Your task to perform on an android device: install app "Adobe Acrobat Reader" Image 0: 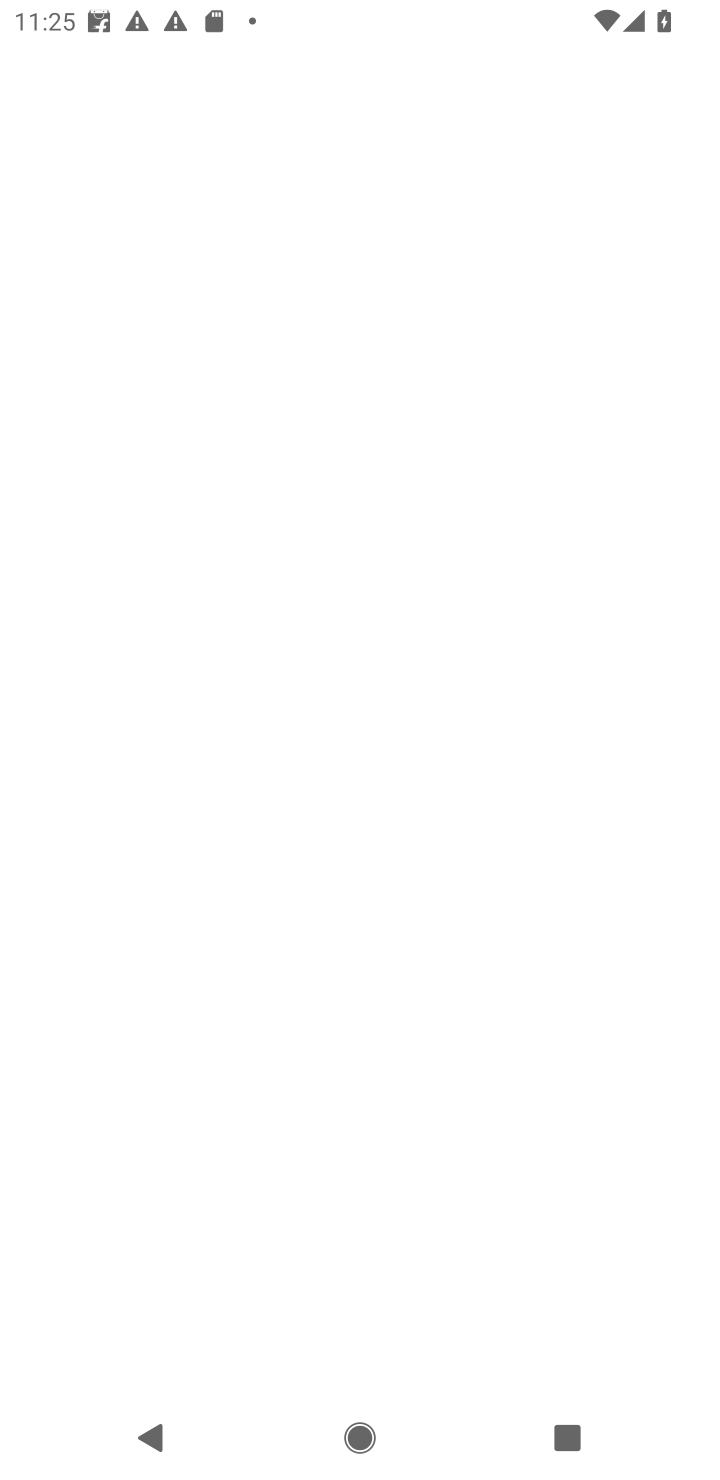
Step 0: press home button
Your task to perform on an android device: install app "Adobe Acrobat Reader" Image 1: 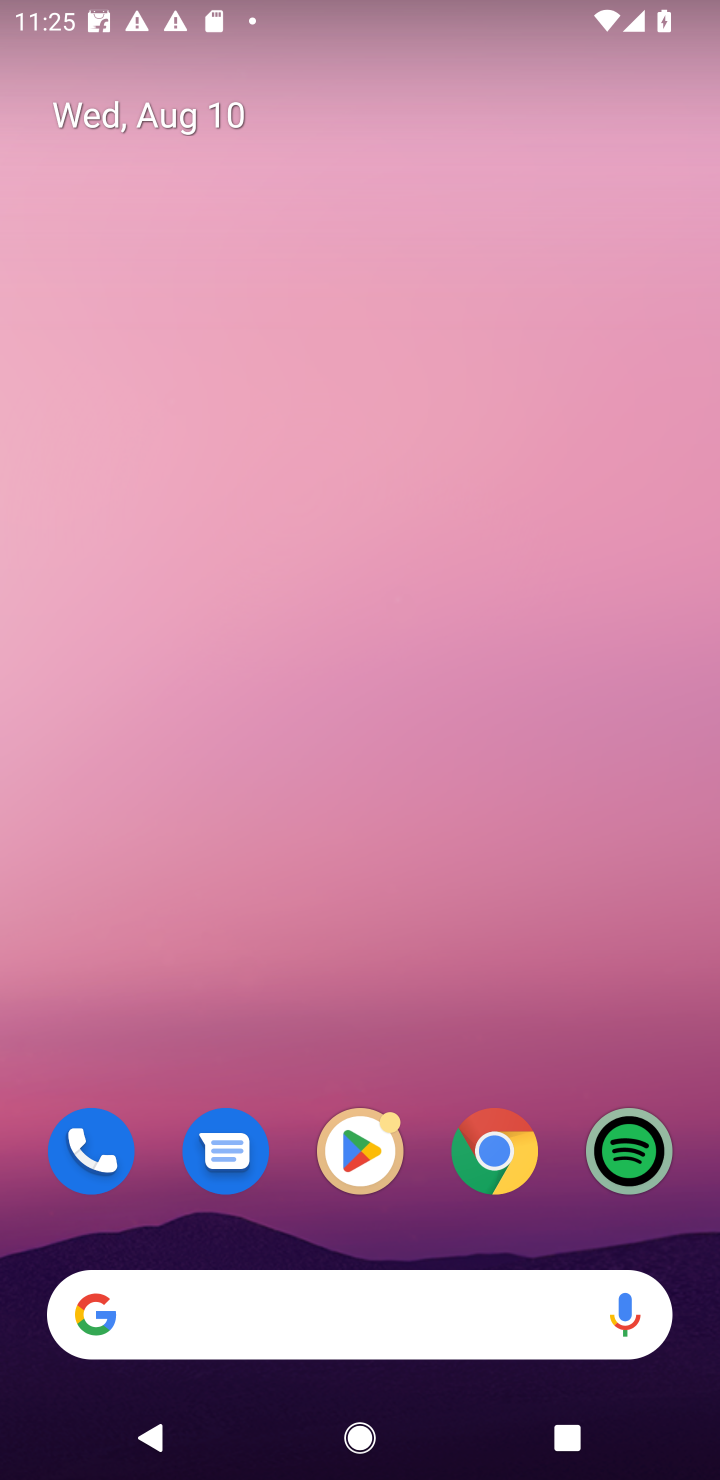
Step 1: drag from (407, 1068) to (407, 99)
Your task to perform on an android device: install app "Adobe Acrobat Reader" Image 2: 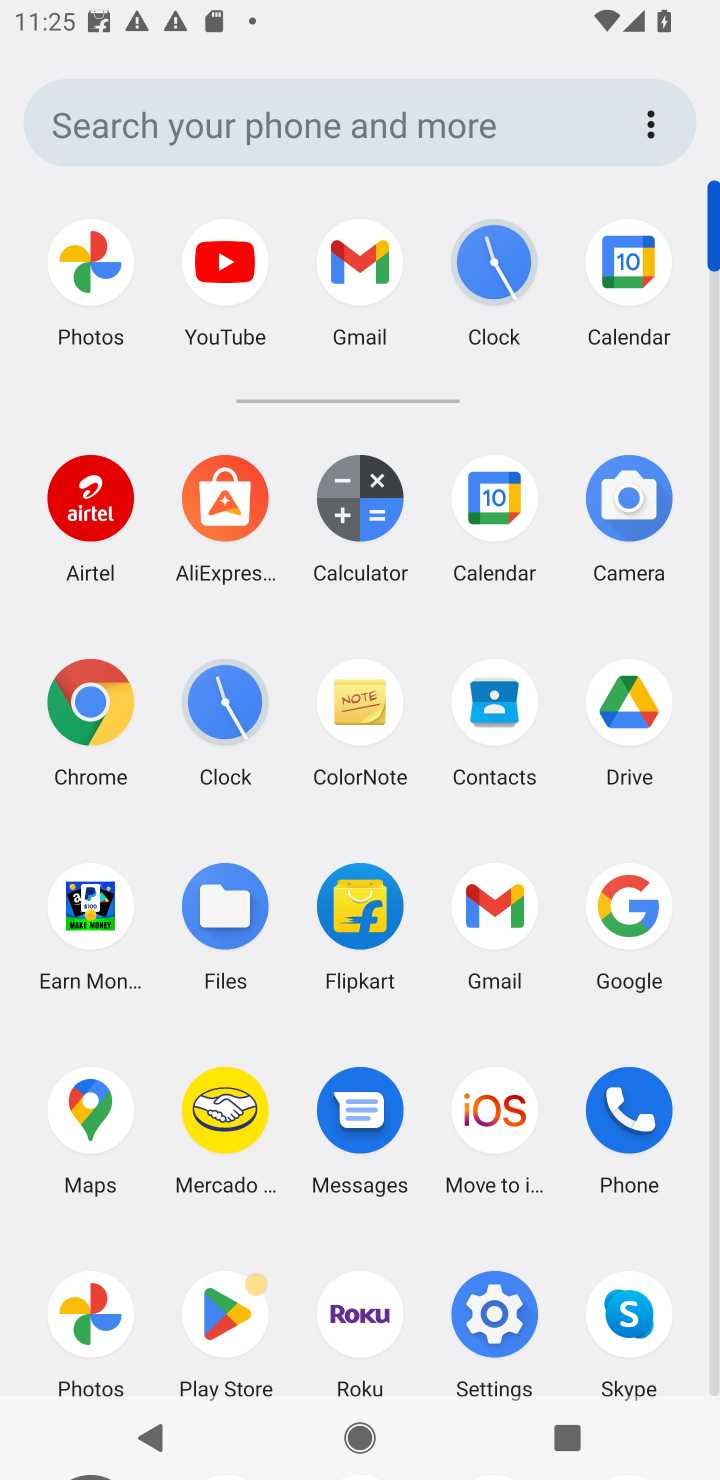
Step 2: click (218, 1302)
Your task to perform on an android device: install app "Adobe Acrobat Reader" Image 3: 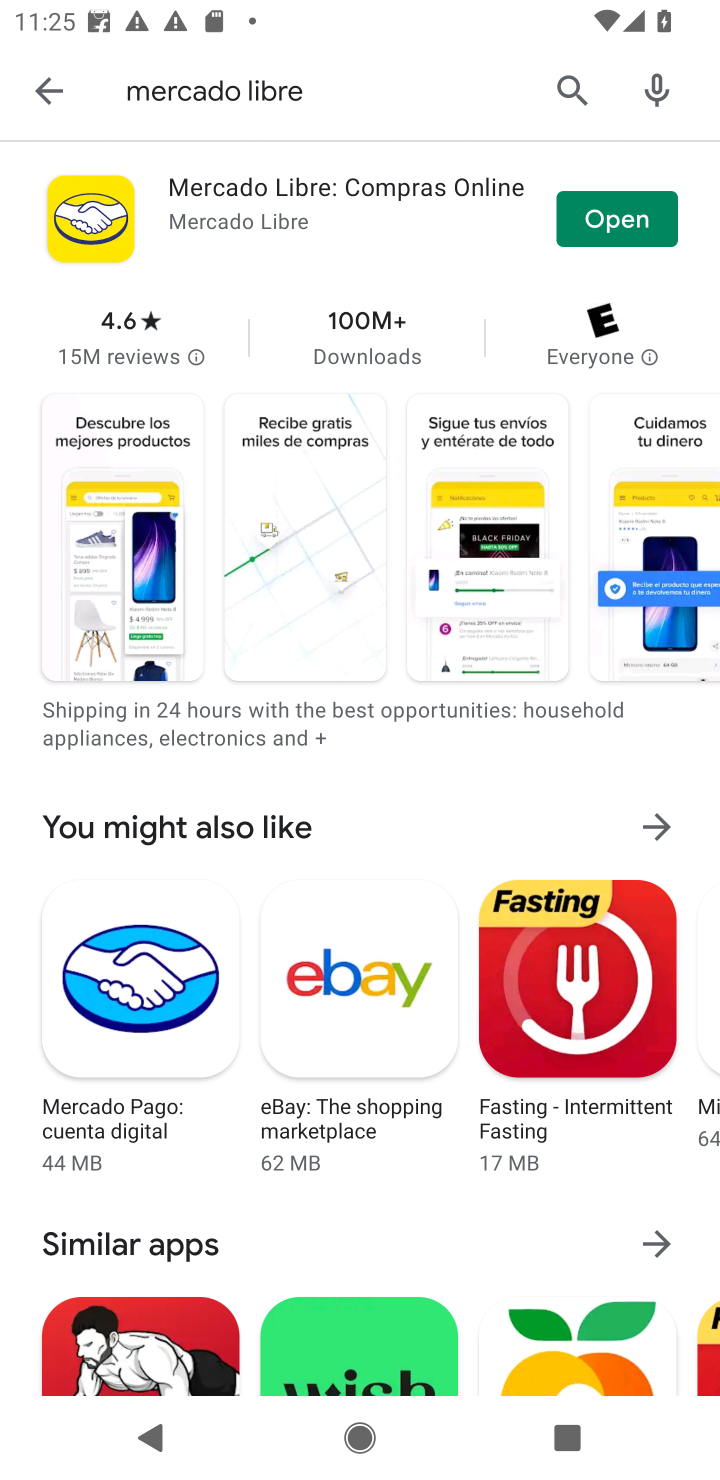
Step 3: click (552, 95)
Your task to perform on an android device: install app "Adobe Acrobat Reader" Image 4: 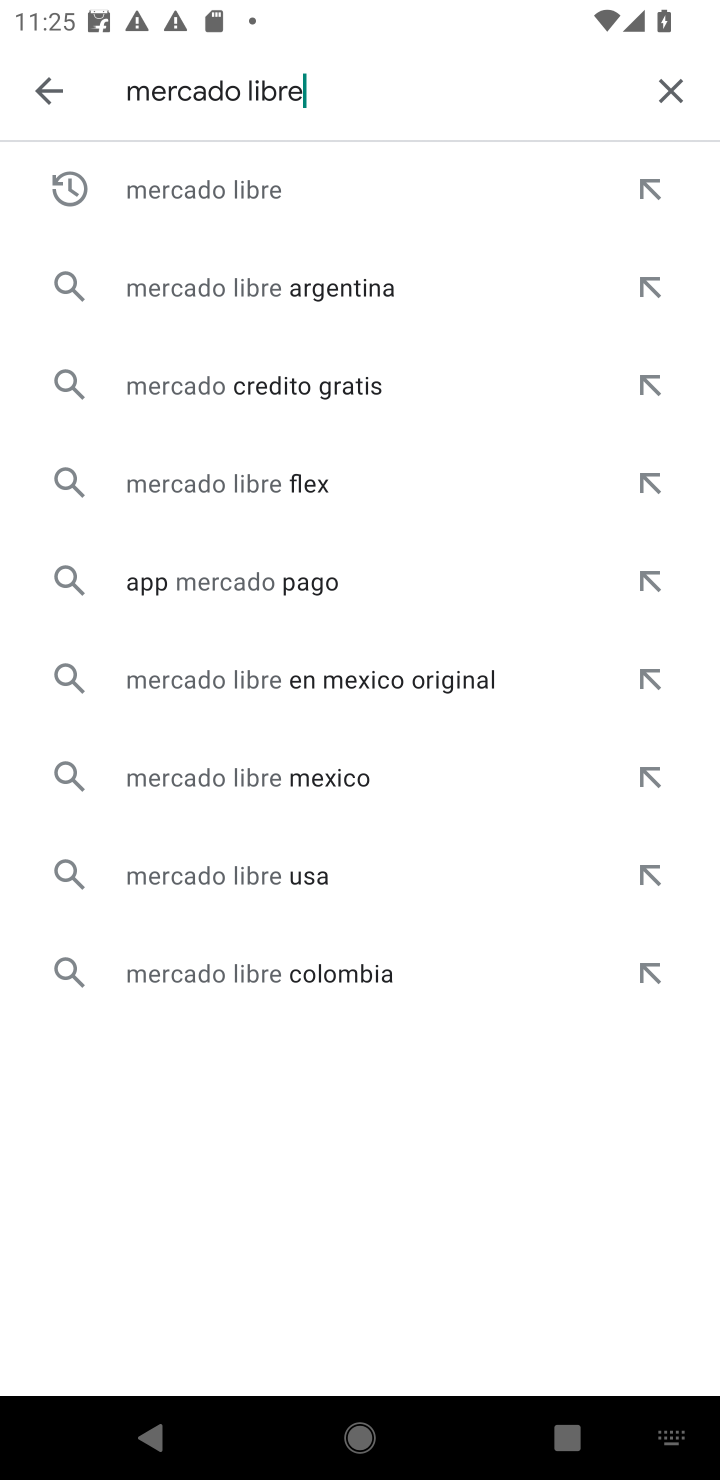
Step 4: click (676, 86)
Your task to perform on an android device: install app "Adobe Acrobat Reader" Image 5: 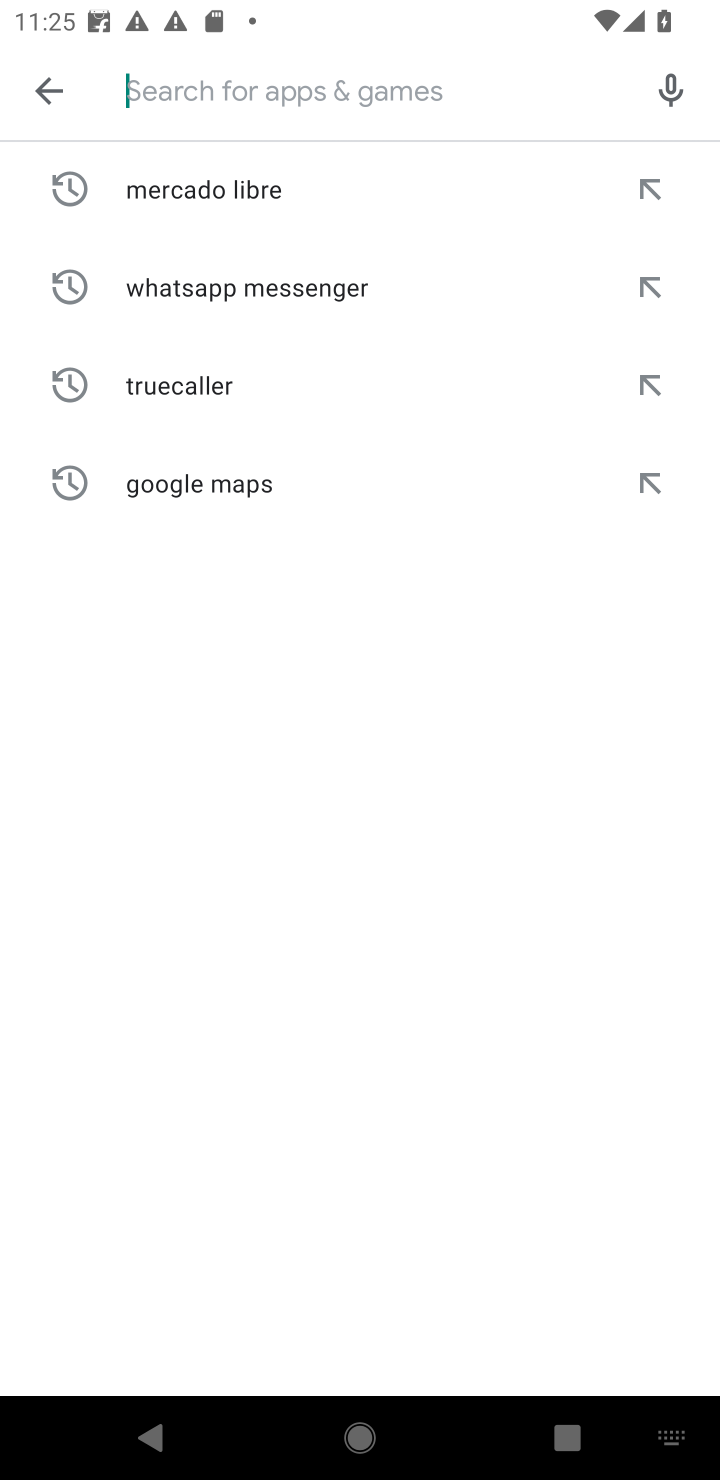
Step 5: type "Adobe Acrobat Reader"
Your task to perform on an android device: install app "Adobe Acrobat Reader" Image 6: 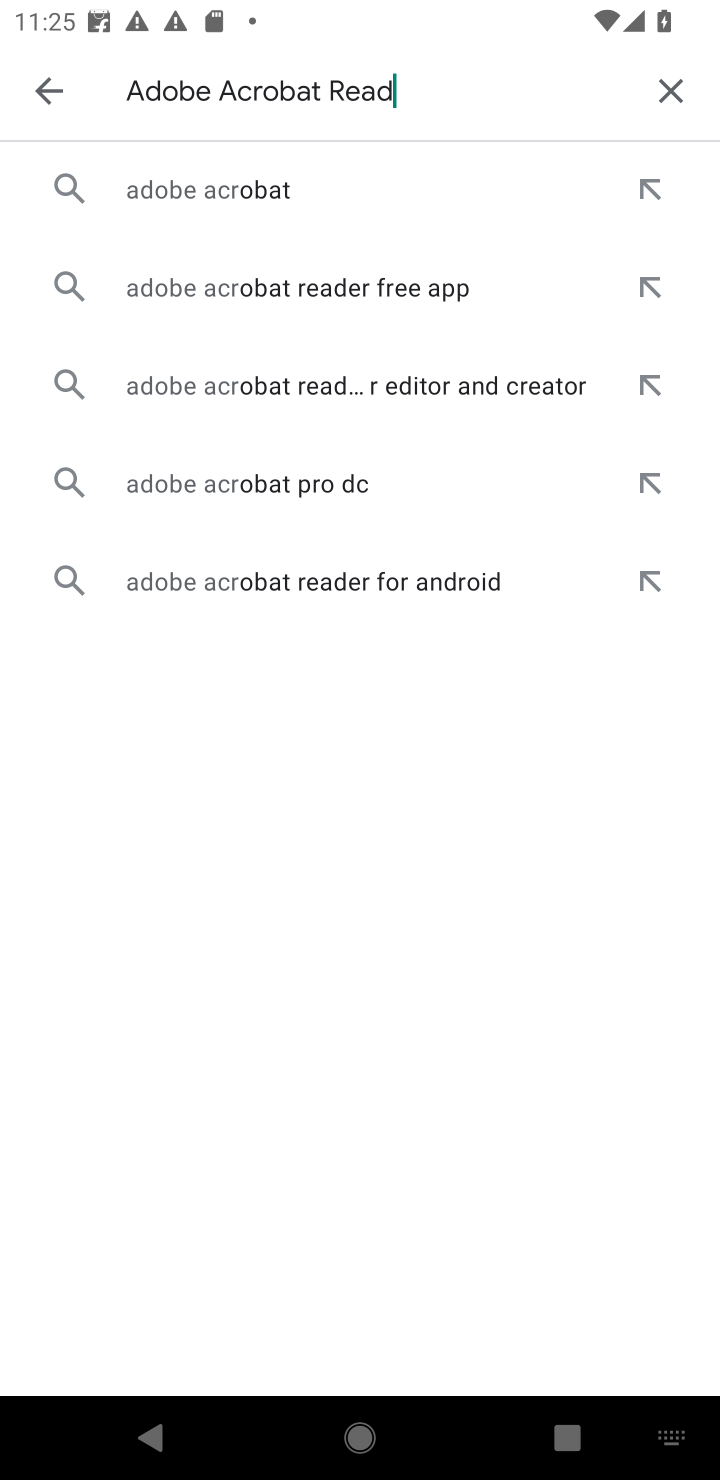
Step 6: type ""
Your task to perform on an android device: install app "Adobe Acrobat Reader" Image 7: 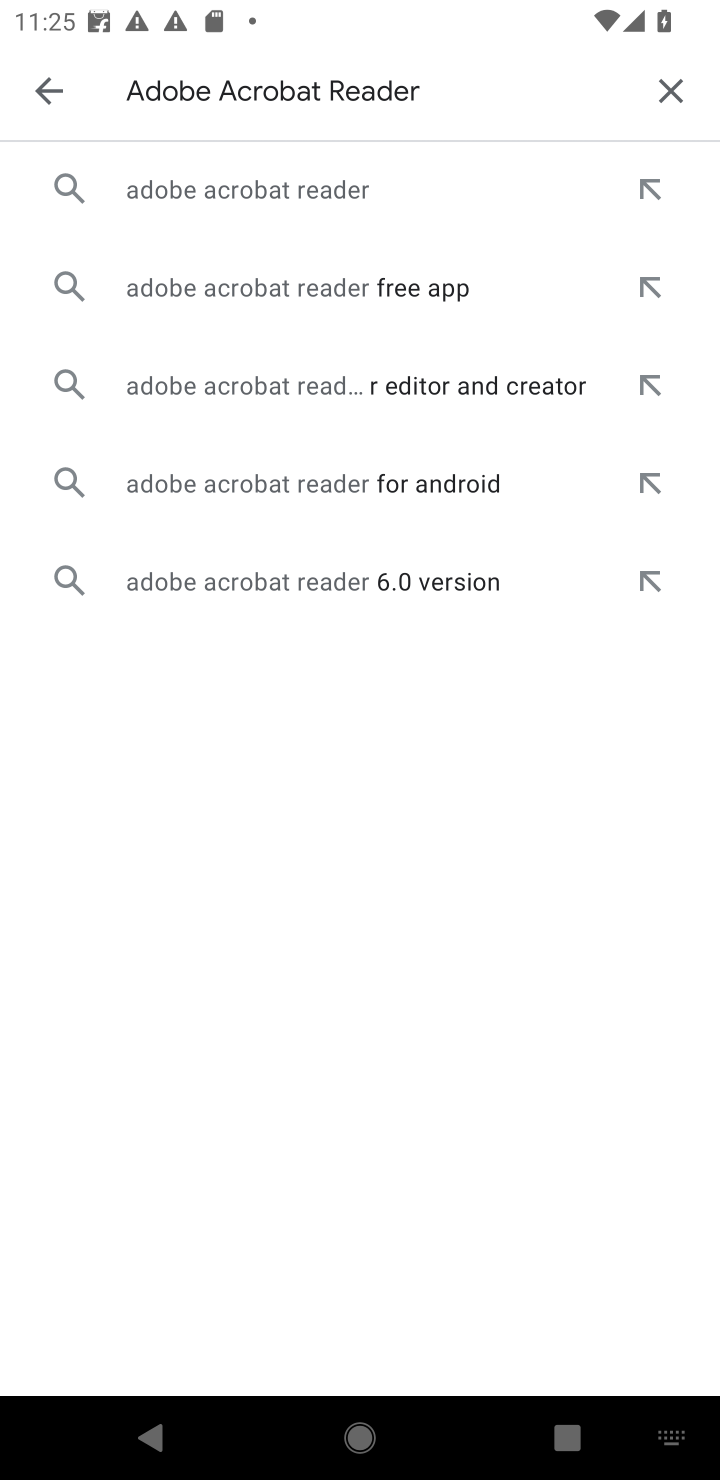
Step 7: click (349, 203)
Your task to perform on an android device: install app "Adobe Acrobat Reader" Image 8: 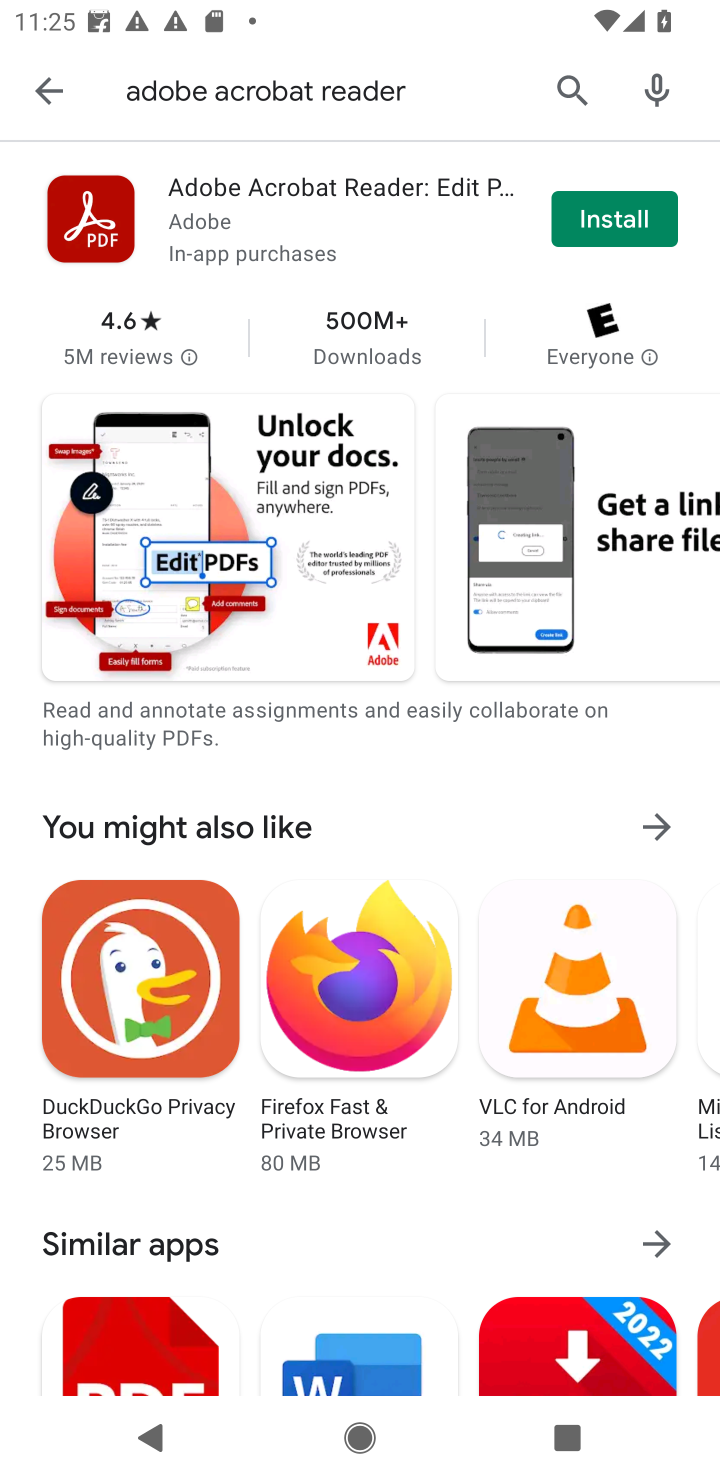
Step 8: click (598, 217)
Your task to perform on an android device: install app "Adobe Acrobat Reader" Image 9: 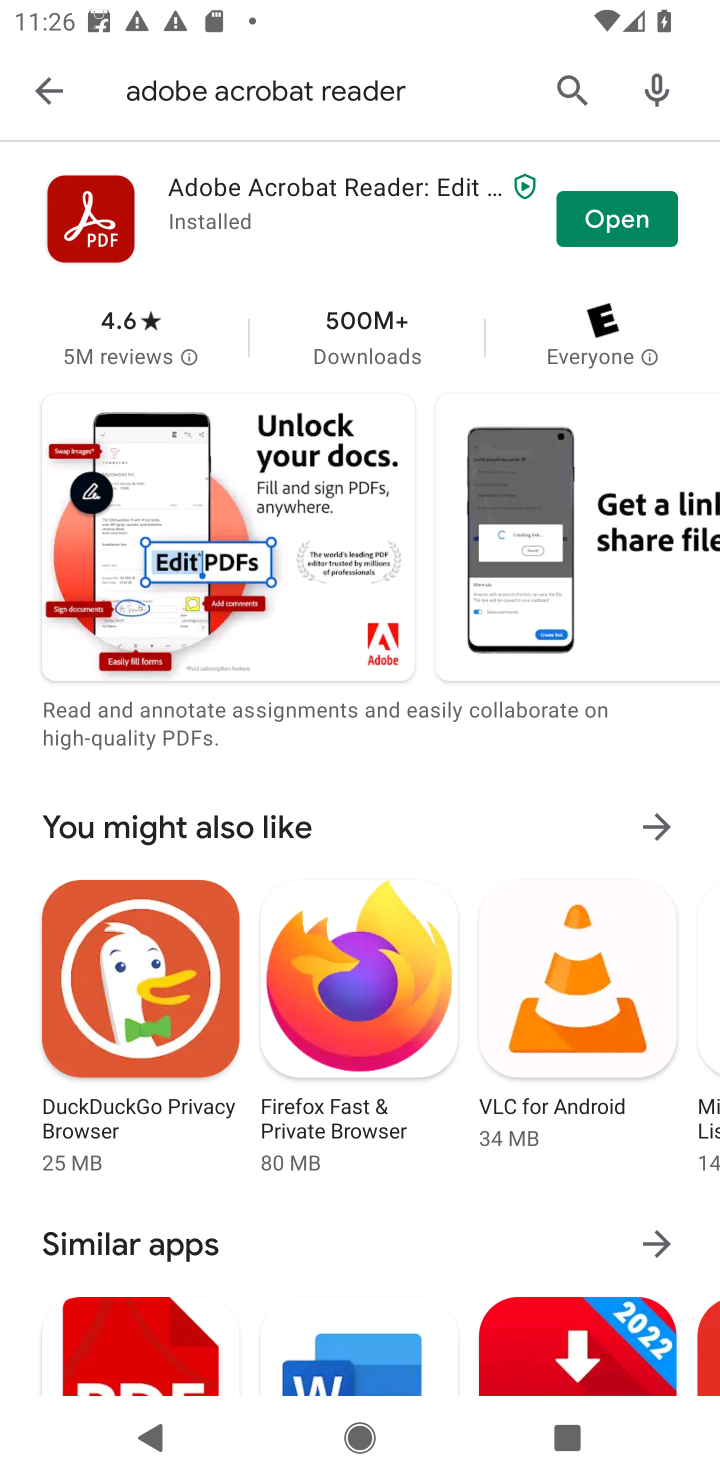
Step 9: click (592, 203)
Your task to perform on an android device: install app "Adobe Acrobat Reader" Image 10: 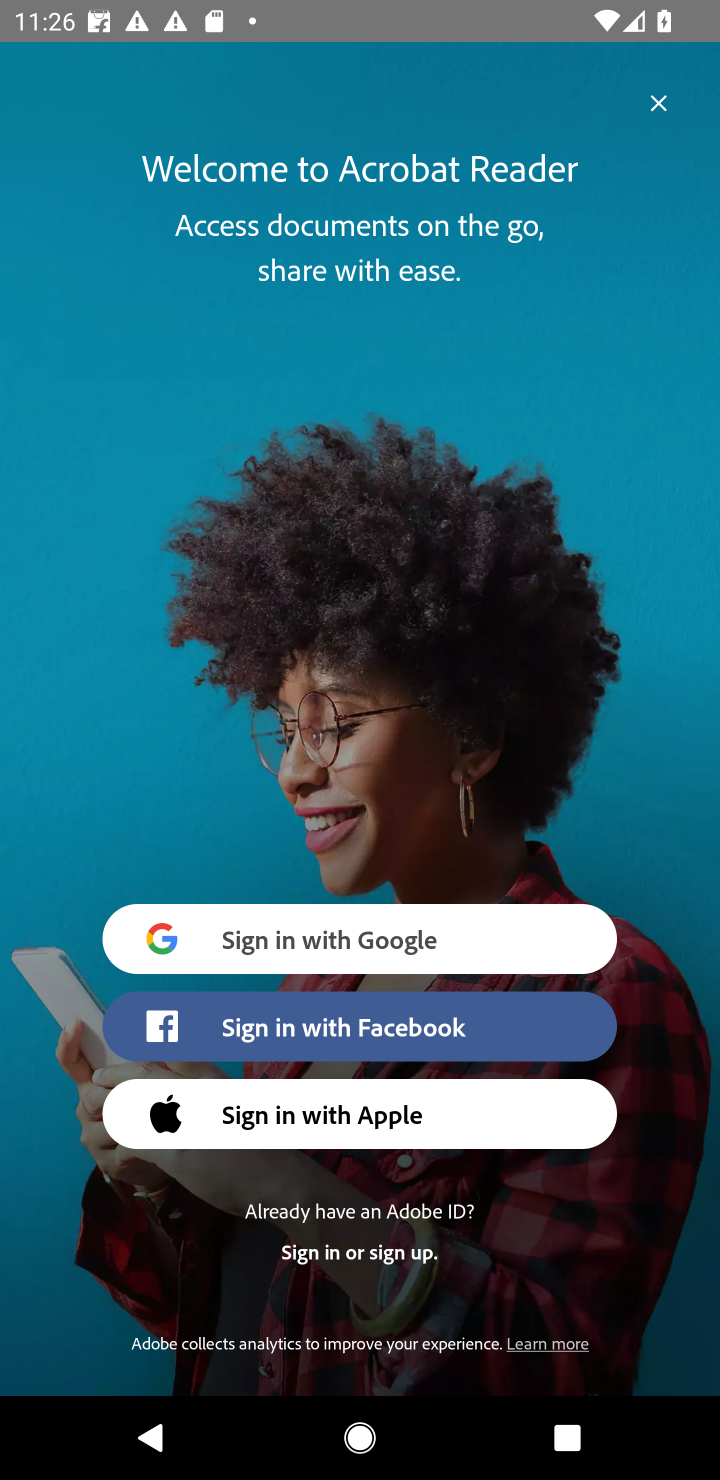
Step 10: click (390, 943)
Your task to perform on an android device: install app "Adobe Acrobat Reader" Image 11: 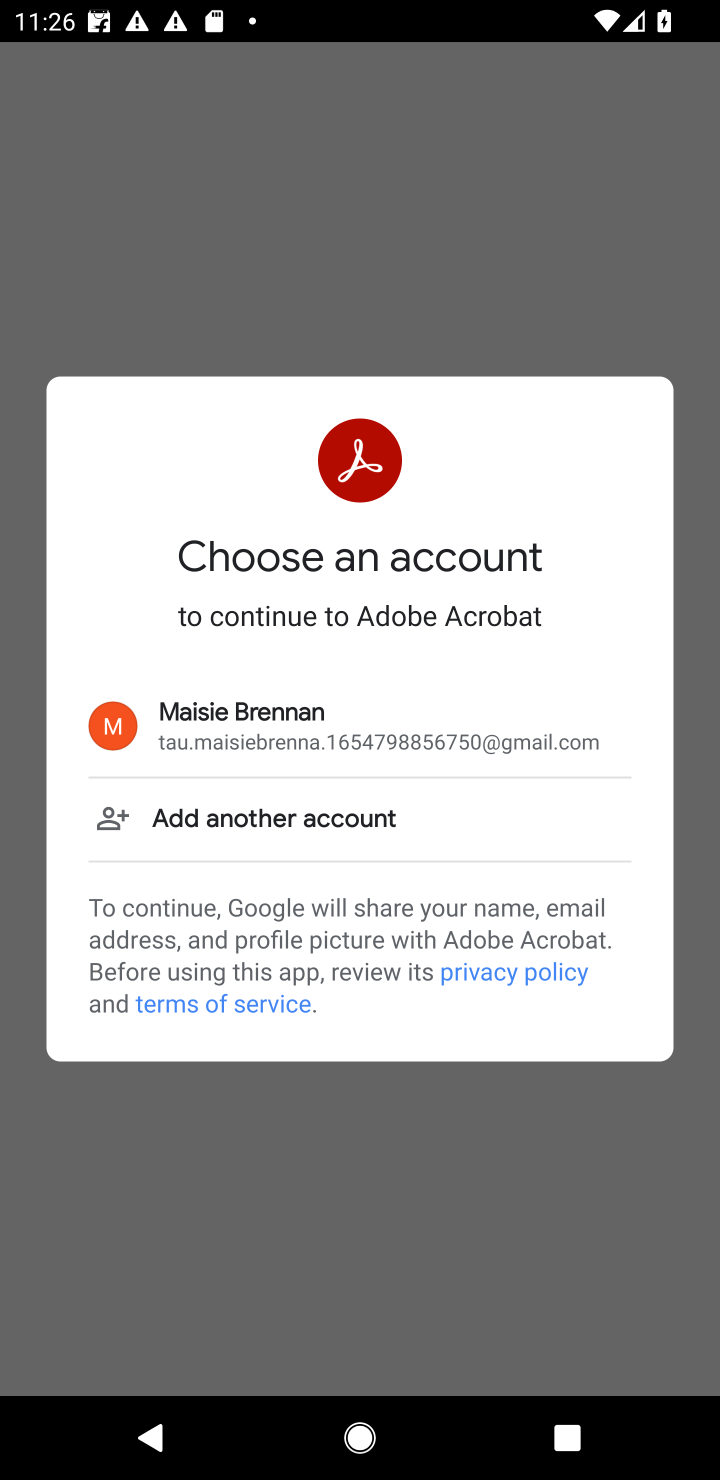
Step 11: click (441, 735)
Your task to perform on an android device: install app "Adobe Acrobat Reader" Image 12: 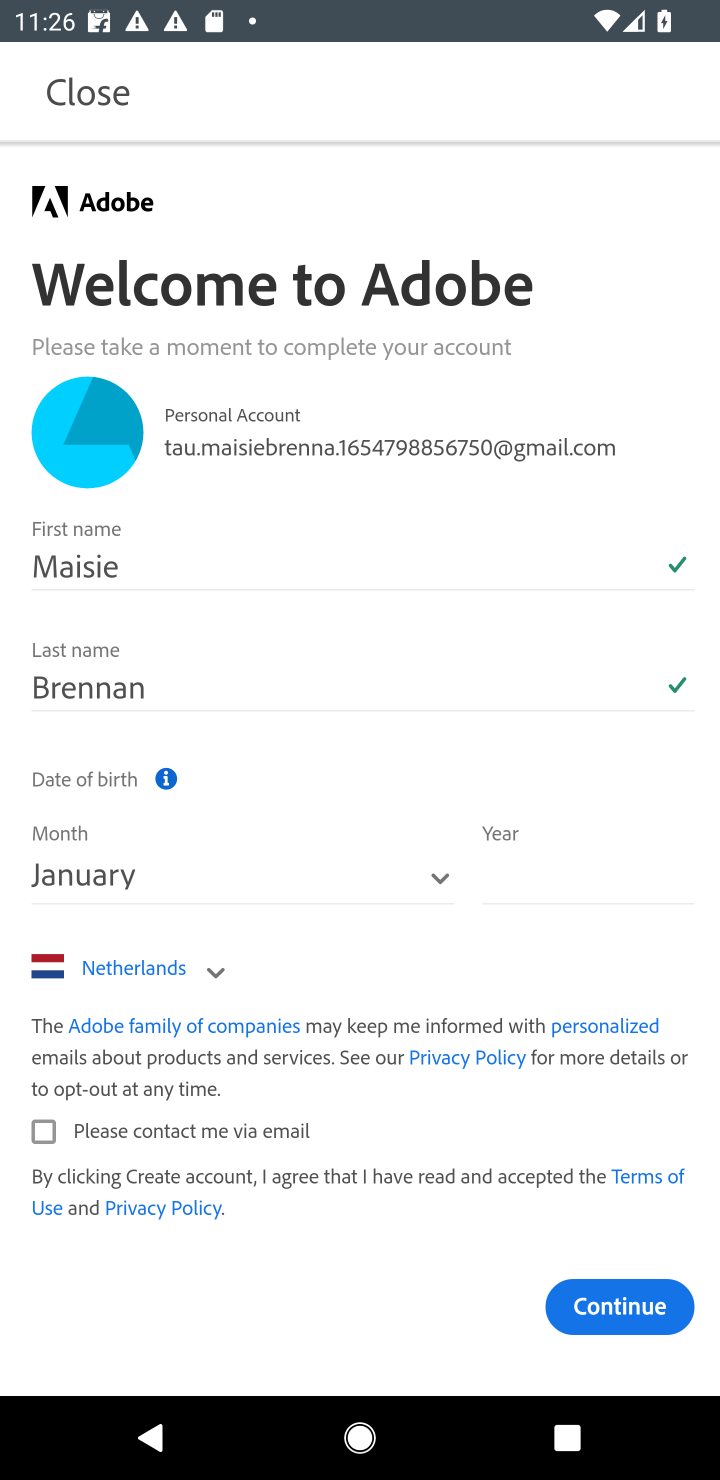
Step 12: click (614, 1297)
Your task to perform on an android device: install app "Adobe Acrobat Reader" Image 13: 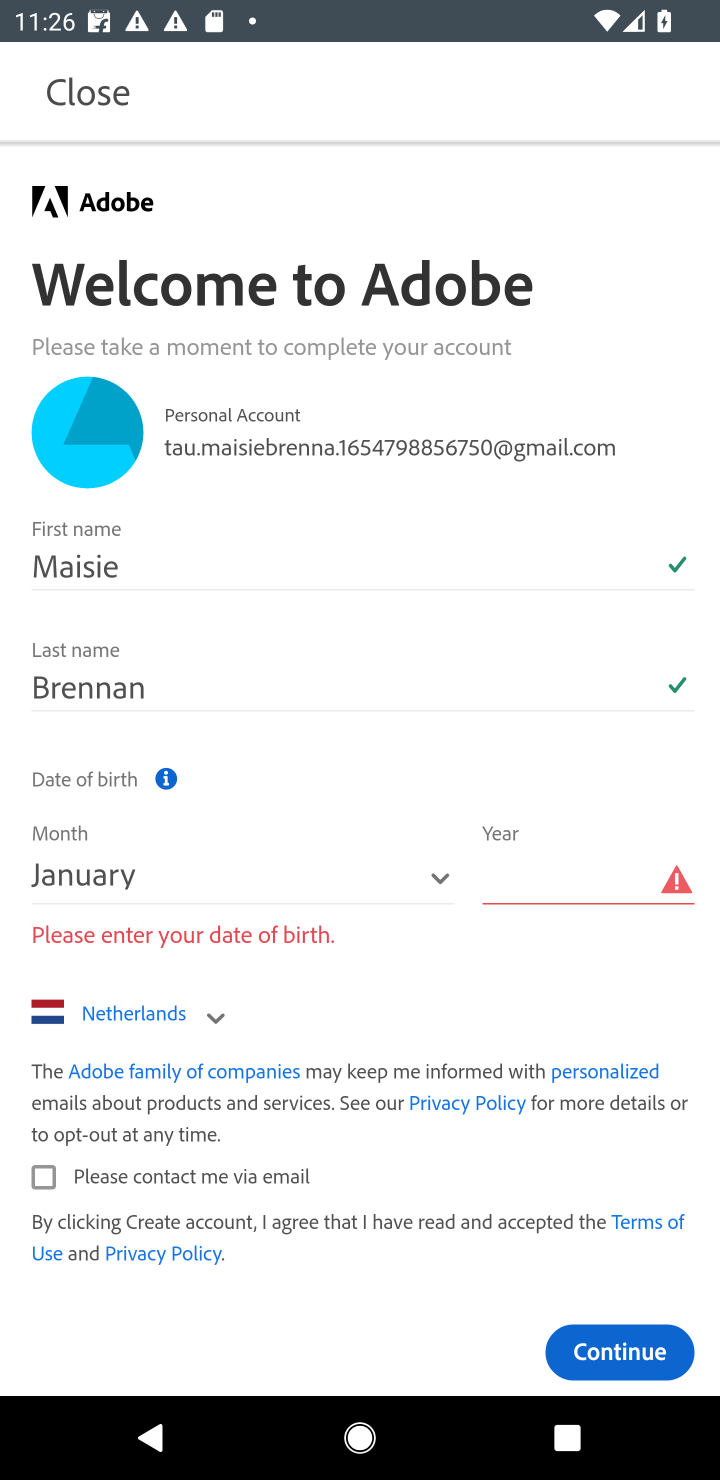
Step 13: task complete